Your task to perform on an android device: toggle show notifications on the lock screen Image 0: 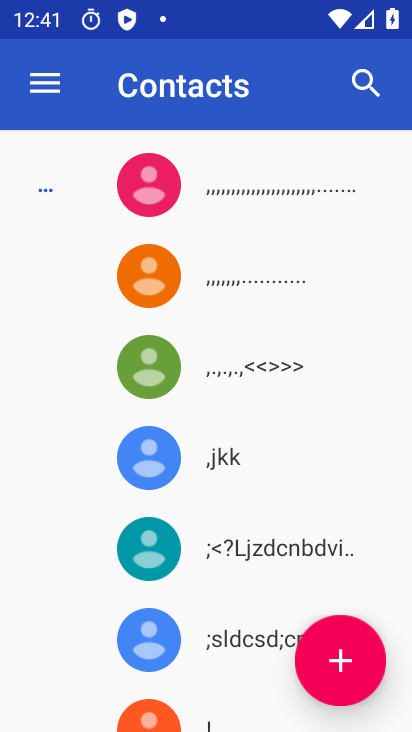
Step 0: press home button
Your task to perform on an android device: toggle show notifications on the lock screen Image 1: 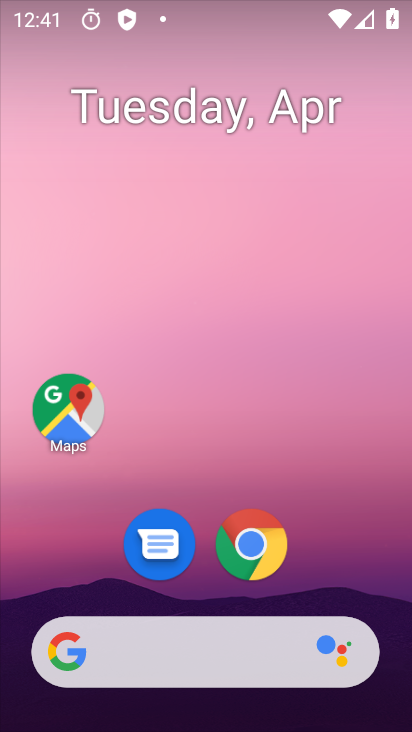
Step 1: drag from (373, 589) to (411, 238)
Your task to perform on an android device: toggle show notifications on the lock screen Image 2: 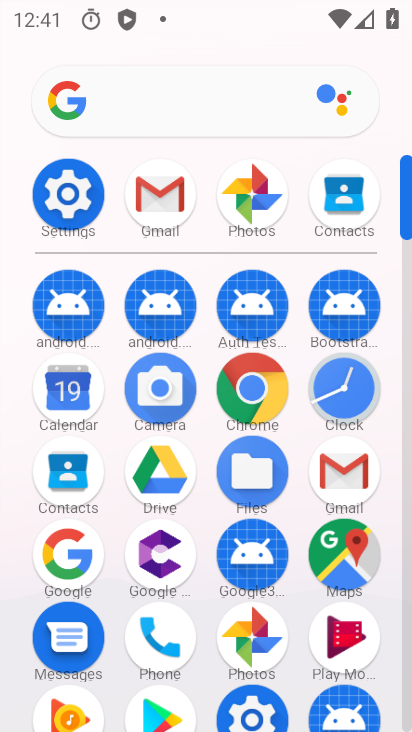
Step 2: click (66, 193)
Your task to perform on an android device: toggle show notifications on the lock screen Image 3: 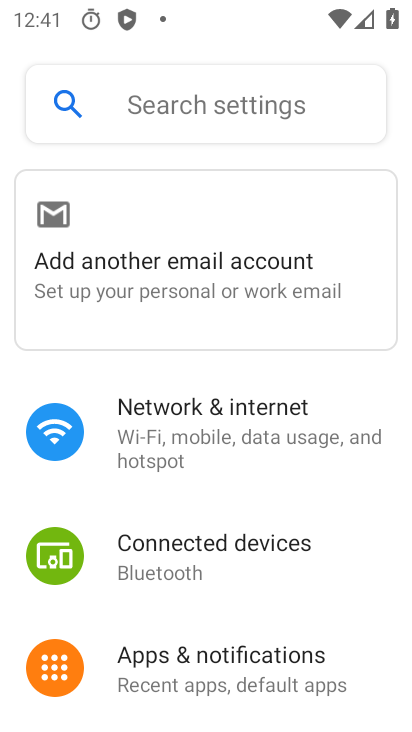
Step 3: click (246, 676)
Your task to perform on an android device: toggle show notifications on the lock screen Image 4: 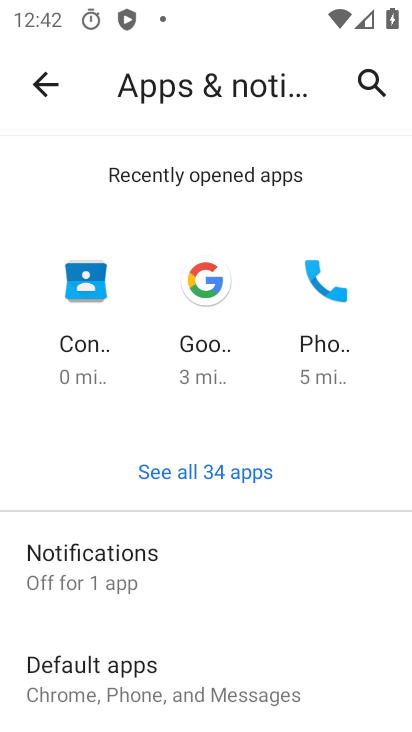
Step 4: click (86, 576)
Your task to perform on an android device: toggle show notifications on the lock screen Image 5: 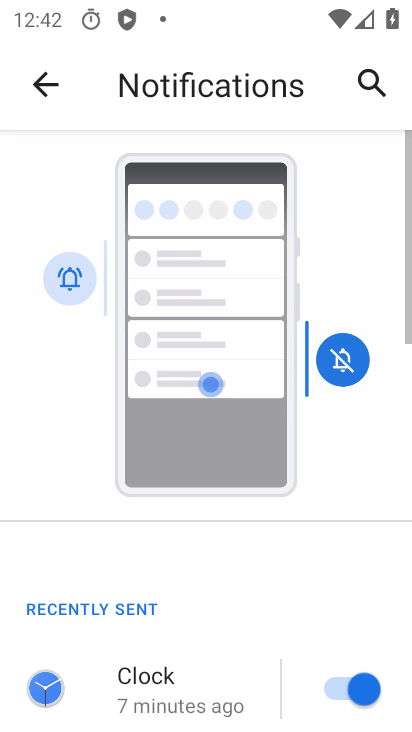
Step 5: drag from (287, 633) to (322, 136)
Your task to perform on an android device: toggle show notifications on the lock screen Image 6: 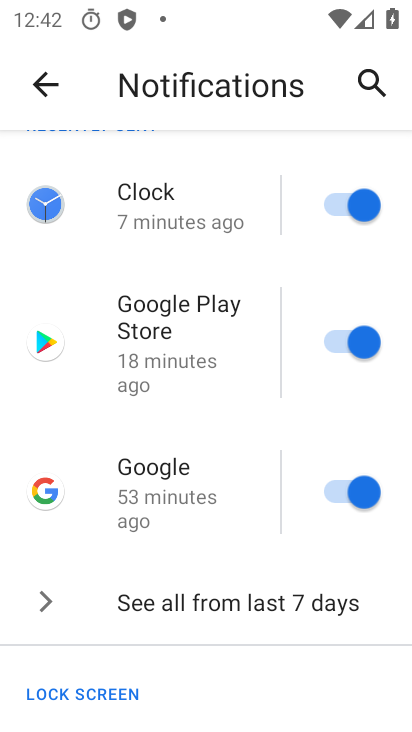
Step 6: drag from (238, 574) to (263, 215)
Your task to perform on an android device: toggle show notifications on the lock screen Image 7: 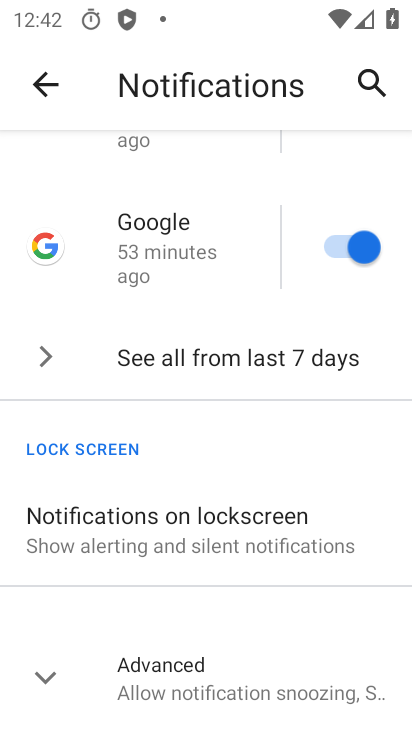
Step 7: click (107, 522)
Your task to perform on an android device: toggle show notifications on the lock screen Image 8: 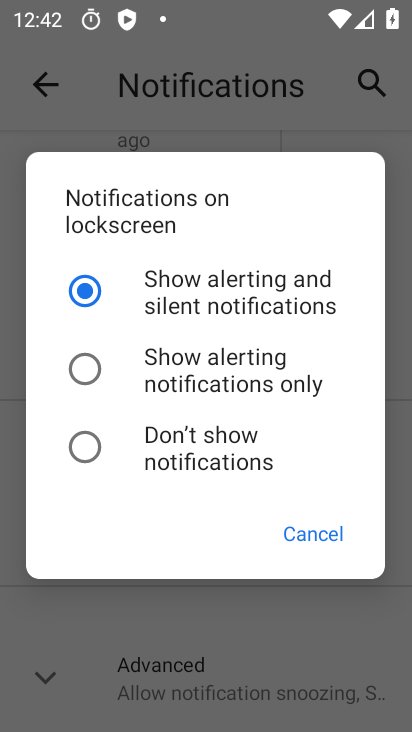
Step 8: click (92, 456)
Your task to perform on an android device: toggle show notifications on the lock screen Image 9: 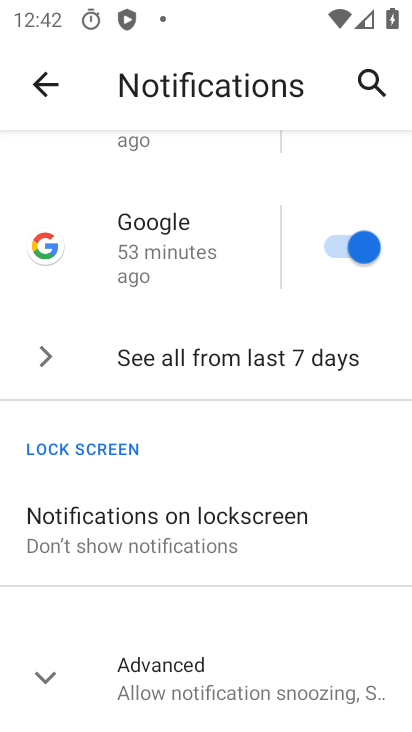
Step 9: task complete